Your task to perform on an android device: open app "Move to iOS" (install if not already installed) and enter user name: "Decca@icloud.com" and password: "reabbreviate" Image 0: 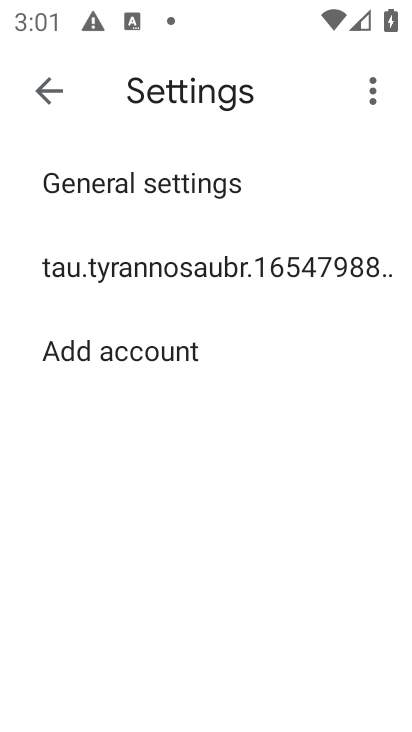
Step 0: press home button
Your task to perform on an android device: open app "Move to iOS" (install if not already installed) and enter user name: "Decca@icloud.com" and password: "reabbreviate" Image 1: 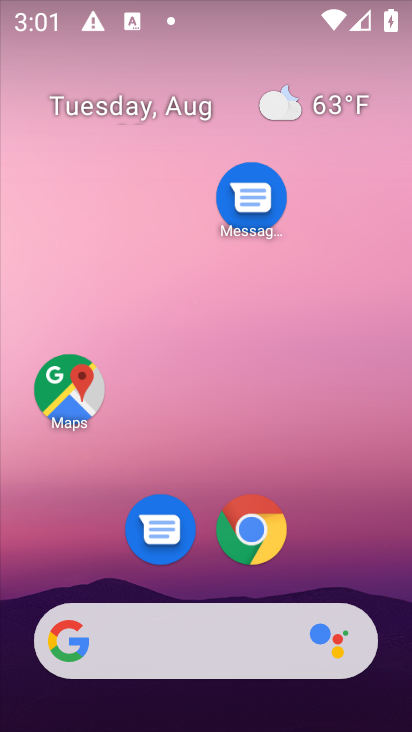
Step 1: drag from (191, 575) to (83, 5)
Your task to perform on an android device: open app "Move to iOS" (install if not already installed) and enter user name: "Decca@icloud.com" and password: "reabbreviate" Image 2: 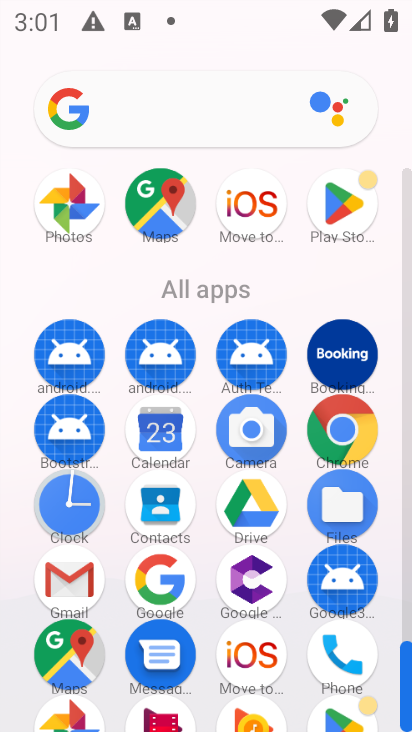
Step 2: click (346, 202)
Your task to perform on an android device: open app "Move to iOS" (install if not already installed) and enter user name: "Decca@icloud.com" and password: "reabbreviate" Image 3: 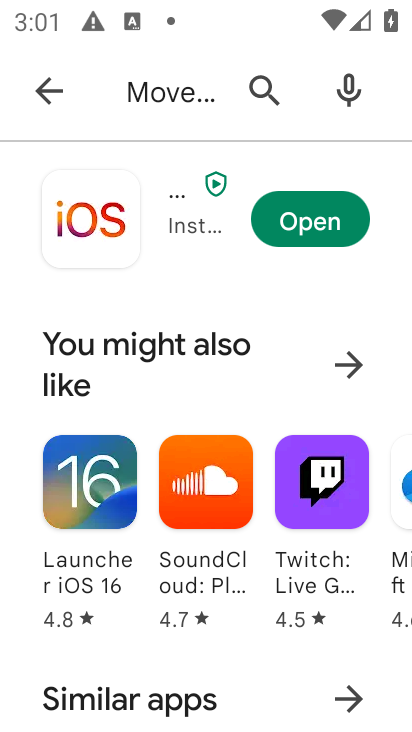
Step 3: press back button
Your task to perform on an android device: open app "Move to iOS" (install if not already installed) and enter user name: "Decca@icloud.com" and password: "reabbreviate" Image 4: 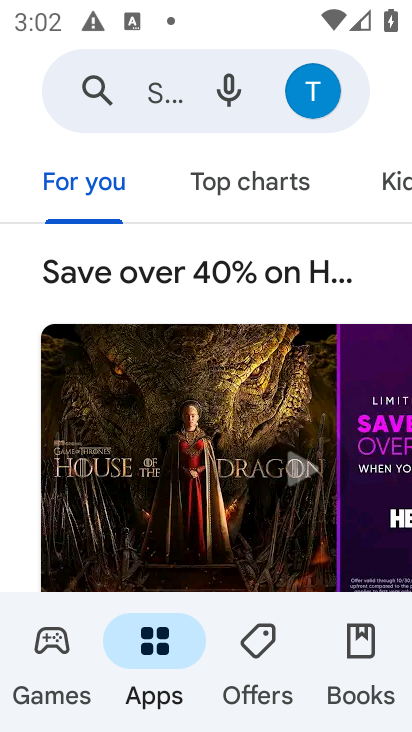
Step 4: click (213, 79)
Your task to perform on an android device: open app "Move to iOS" (install if not already installed) and enter user name: "Decca@icloud.com" and password: "reabbreviate" Image 5: 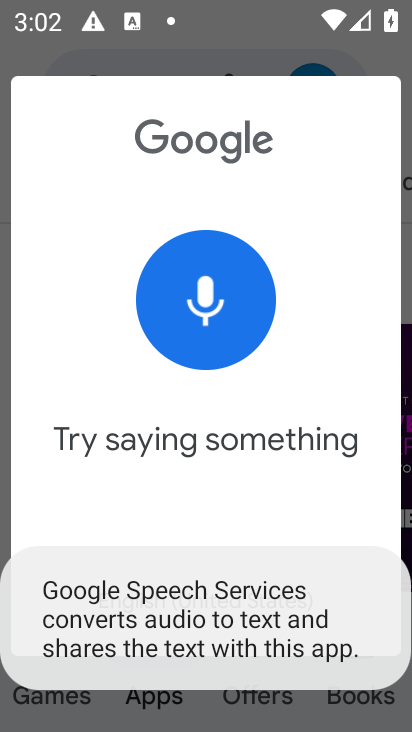
Step 5: press back button
Your task to perform on an android device: open app "Move to iOS" (install if not already installed) and enter user name: "Decca@icloud.com" and password: "reabbreviate" Image 6: 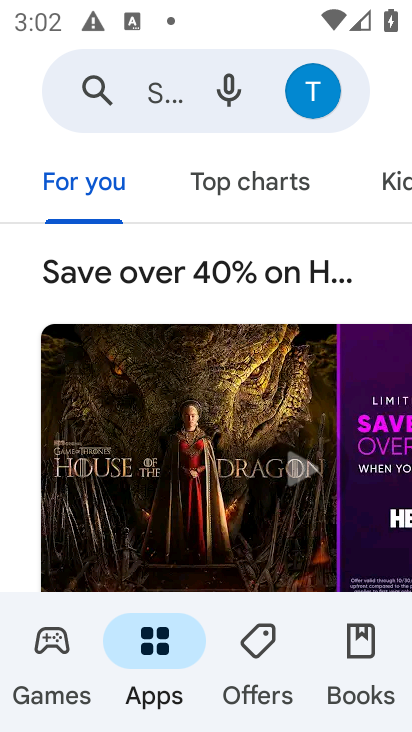
Step 6: click (181, 101)
Your task to perform on an android device: open app "Move to iOS" (install if not already installed) and enter user name: "Decca@icloud.com" and password: "reabbreviate" Image 7: 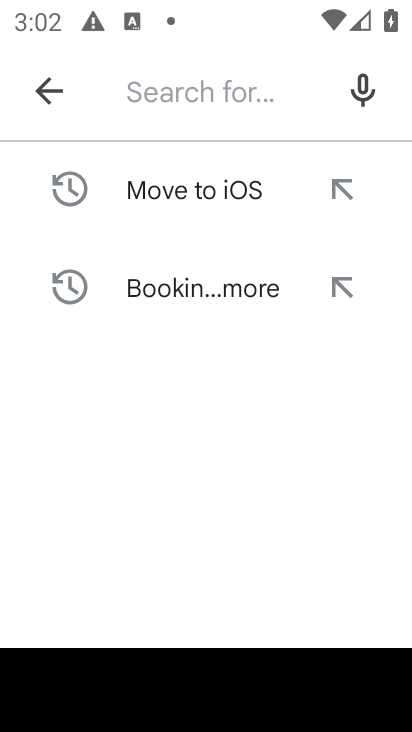
Step 7: type "Move to iOS"
Your task to perform on an android device: open app "Move to iOS" (install if not already installed) and enter user name: "Decca@icloud.com" and password: "reabbreviate" Image 8: 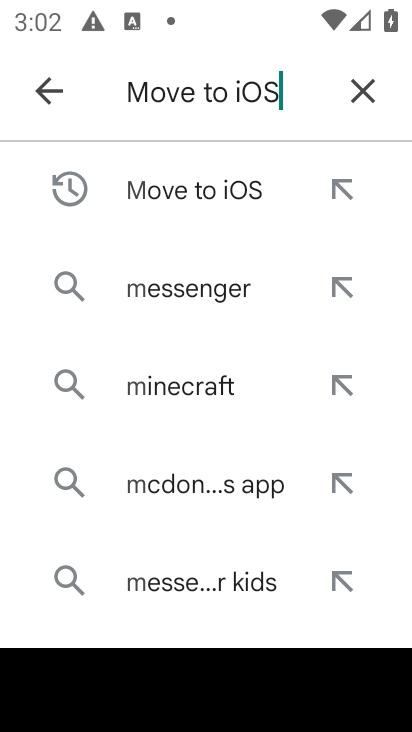
Step 8: press enter
Your task to perform on an android device: open app "Move to iOS" (install if not already installed) and enter user name: "Decca@icloud.com" and password: "reabbreviate" Image 9: 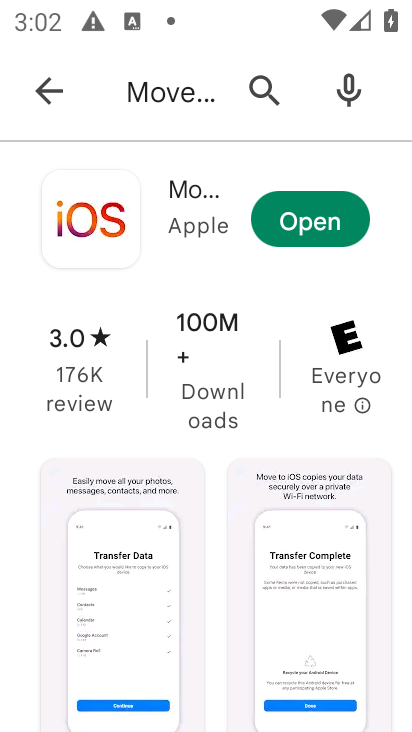
Step 9: click (309, 224)
Your task to perform on an android device: open app "Move to iOS" (install if not already installed) and enter user name: "Decca@icloud.com" and password: "reabbreviate" Image 10: 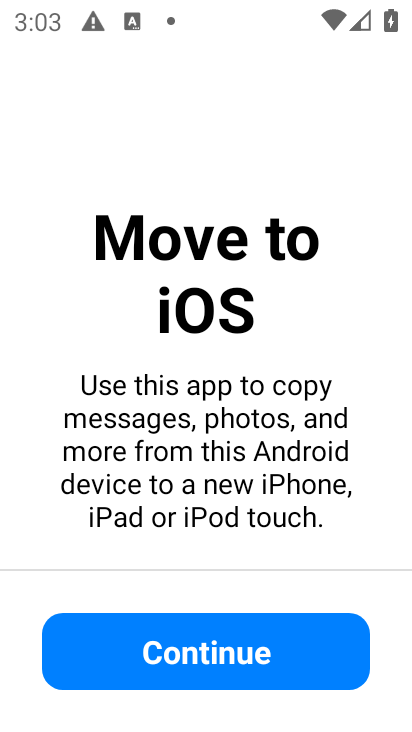
Step 10: click (254, 658)
Your task to perform on an android device: open app "Move to iOS" (install if not already installed) and enter user name: "Decca@icloud.com" and password: "reabbreviate" Image 11: 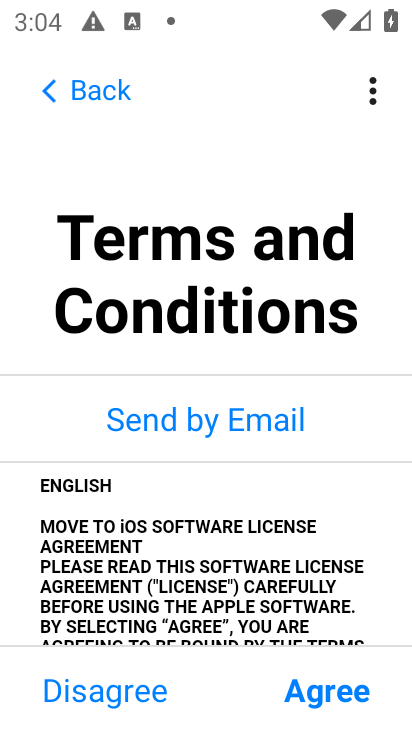
Step 11: click (326, 689)
Your task to perform on an android device: open app "Move to iOS" (install if not already installed) and enter user name: "Decca@icloud.com" and password: "reabbreviate" Image 12: 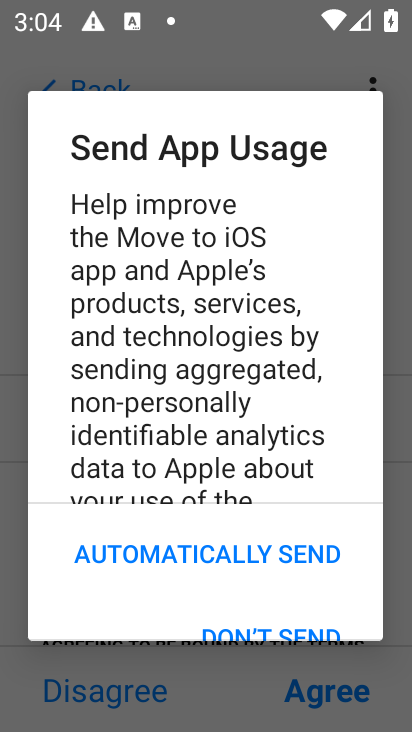
Step 12: task complete